Your task to perform on an android device: set an alarm Image 0: 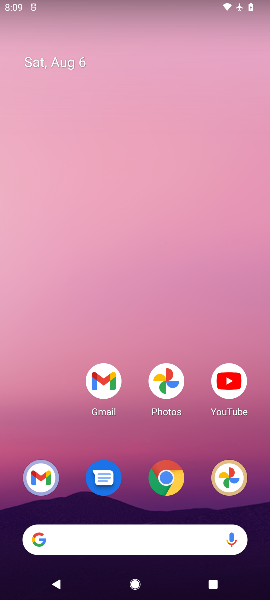
Step 0: press home button
Your task to perform on an android device: set an alarm Image 1: 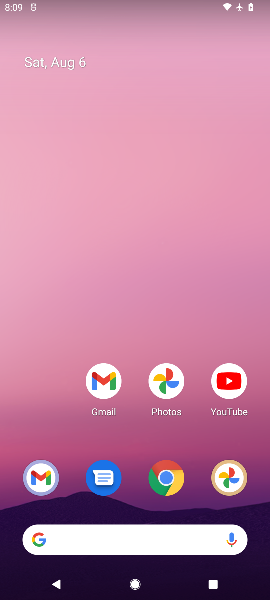
Step 1: drag from (63, 438) to (57, 2)
Your task to perform on an android device: set an alarm Image 2: 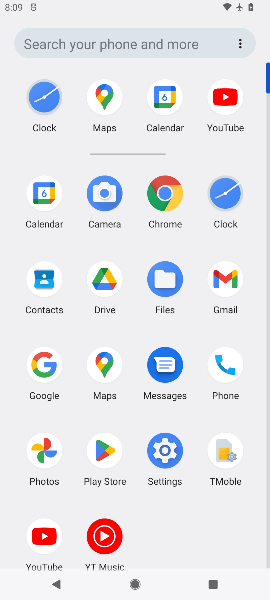
Step 2: click (222, 198)
Your task to perform on an android device: set an alarm Image 3: 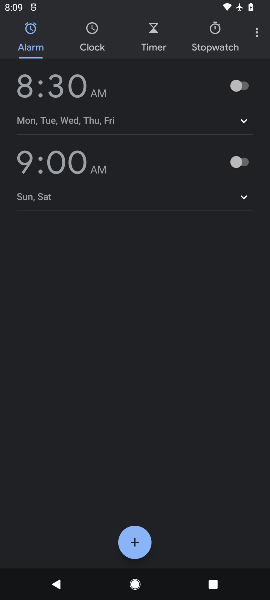
Step 3: click (35, 32)
Your task to perform on an android device: set an alarm Image 4: 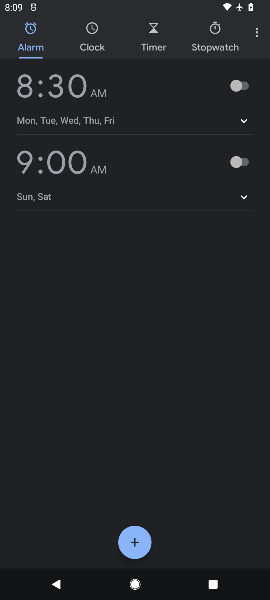
Step 4: click (236, 82)
Your task to perform on an android device: set an alarm Image 5: 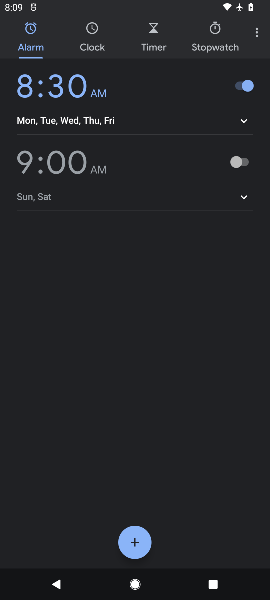
Step 5: task complete